Your task to perform on an android device: delete a single message in the gmail app Image 0: 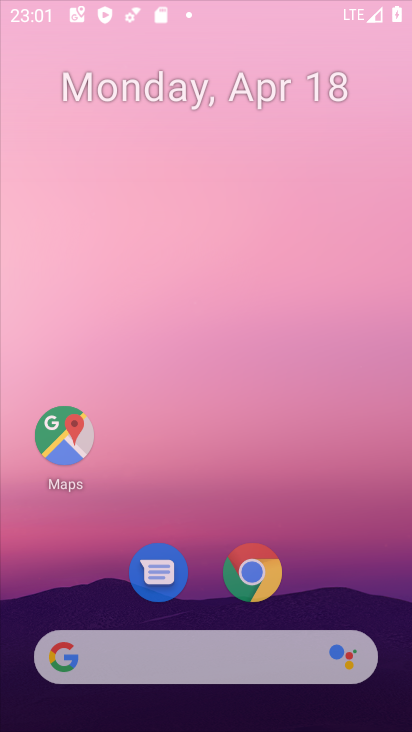
Step 0: click (263, 603)
Your task to perform on an android device: delete a single message in the gmail app Image 1: 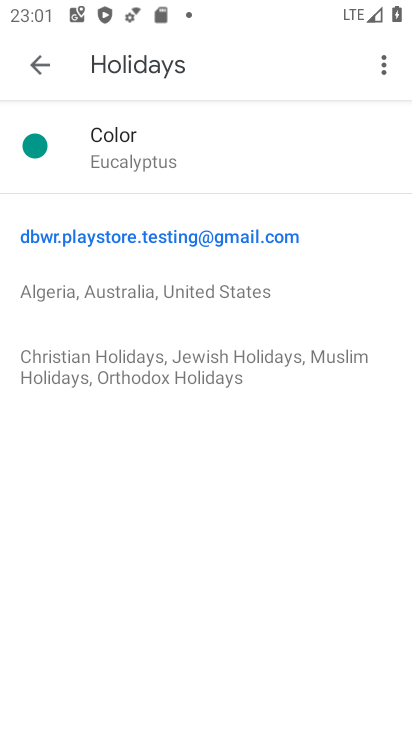
Step 1: press home button
Your task to perform on an android device: delete a single message in the gmail app Image 2: 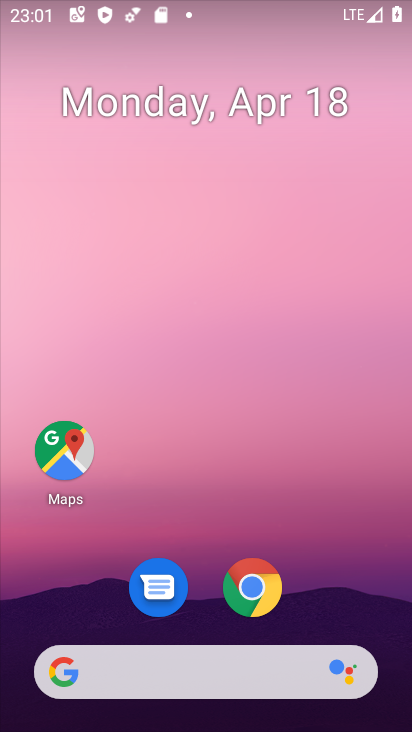
Step 2: drag from (354, 497) to (305, 134)
Your task to perform on an android device: delete a single message in the gmail app Image 3: 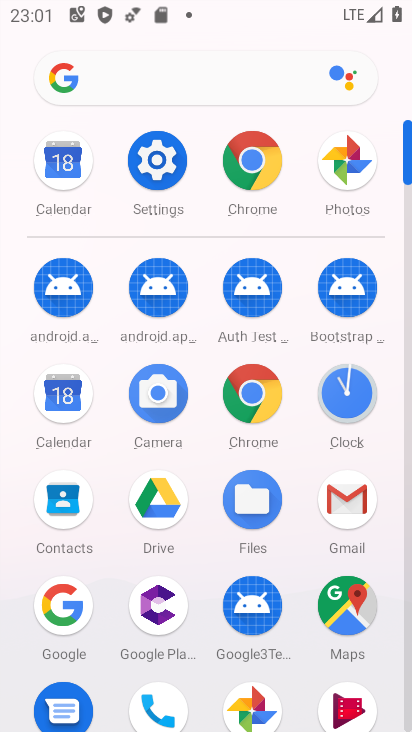
Step 3: click (349, 510)
Your task to perform on an android device: delete a single message in the gmail app Image 4: 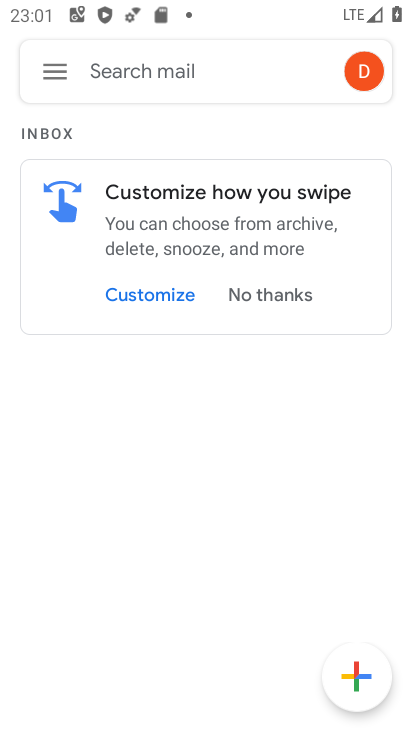
Step 4: click (60, 75)
Your task to perform on an android device: delete a single message in the gmail app Image 5: 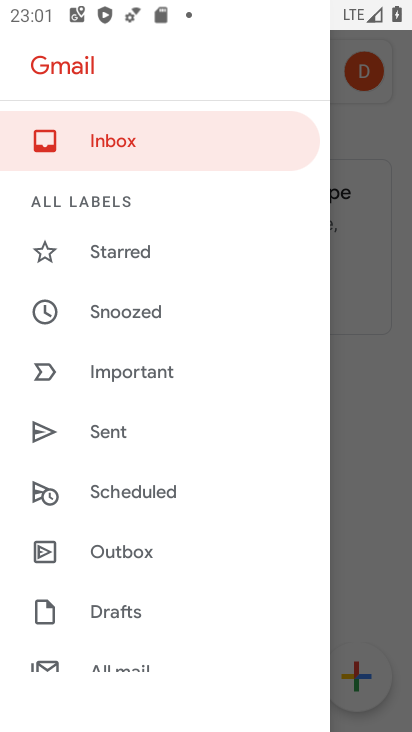
Step 5: click (125, 661)
Your task to perform on an android device: delete a single message in the gmail app Image 6: 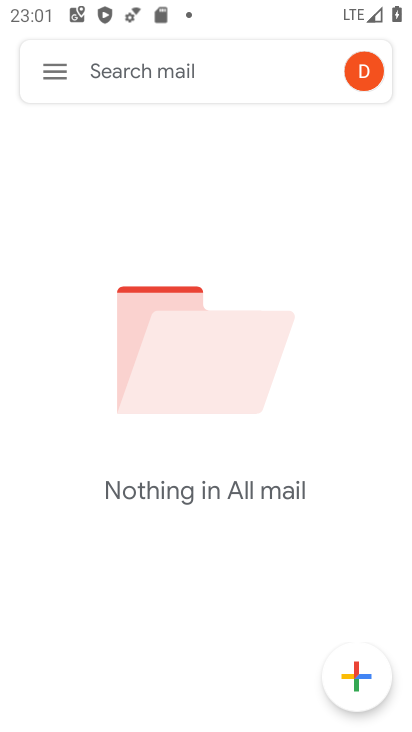
Step 6: task complete